Your task to perform on an android device: turn off location history Image 0: 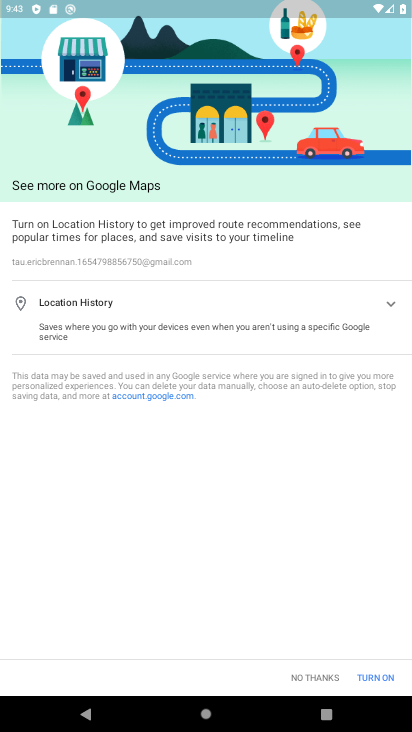
Step 0: click (224, 326)
Your task to perform on an android device: turn off location history Image 1: 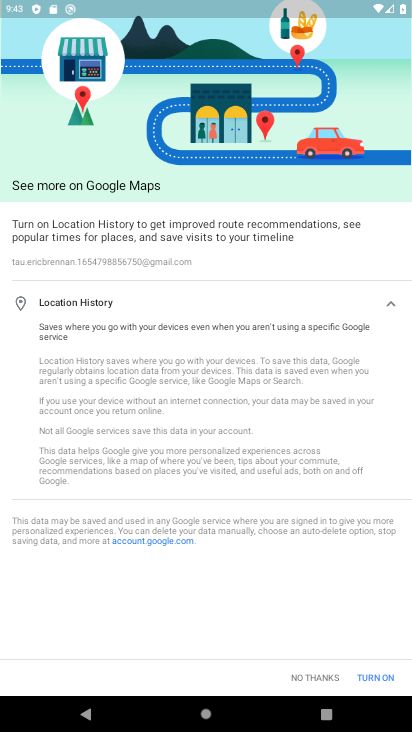
Step 1: click (308, 681)
Your task to perform on an android device: turn off location history Image 2: 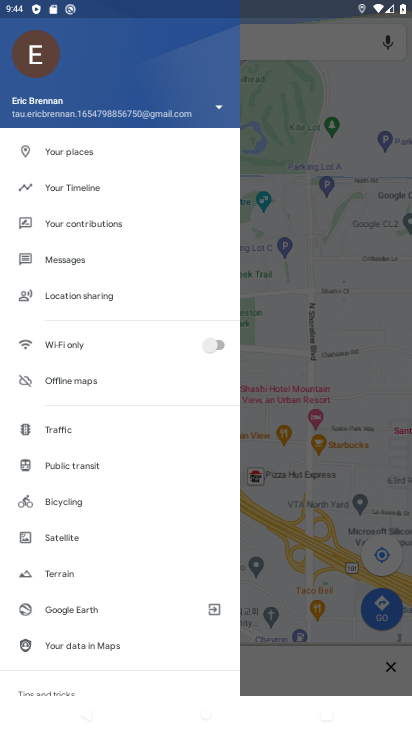
Step 2: press home button
Your task to perform on an android device: turn off location history Image 3: 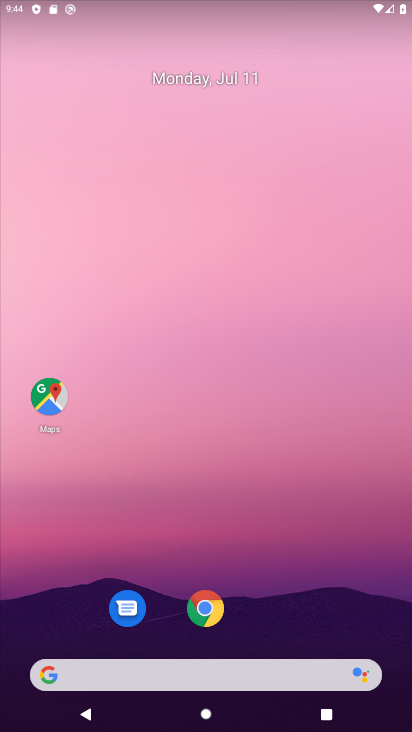
Step 3: drag from (27, 714) to (215, 95)
Your task to perform on an android device: turn off location history Image 4: 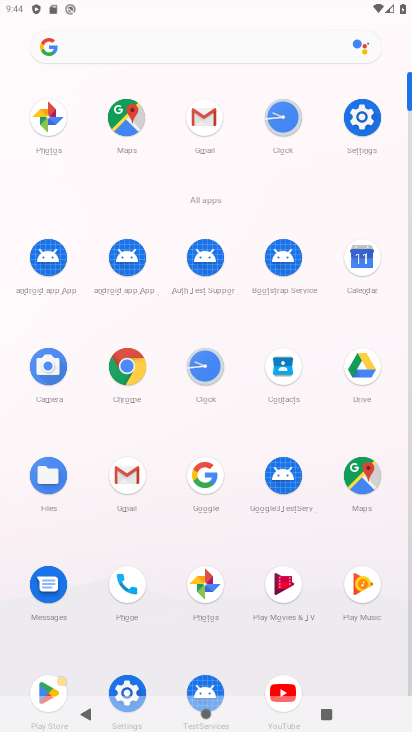
Step 4: click (135, 687)
Your task to perform on an android device: turn off location history Image 5: 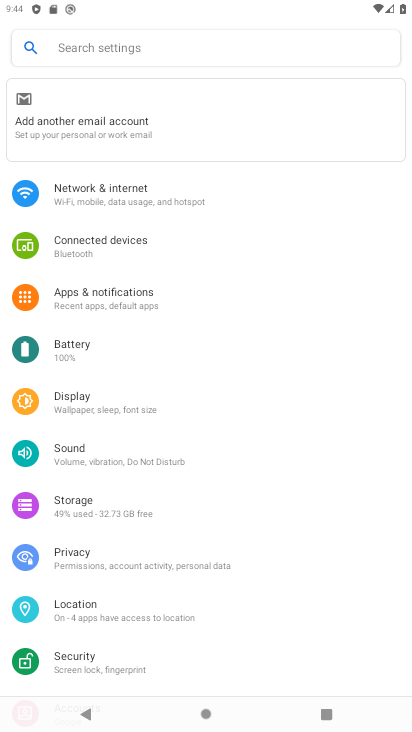
Step 5: click (100, 594)
Your task to perform on an android device: turn off location history Image 6: 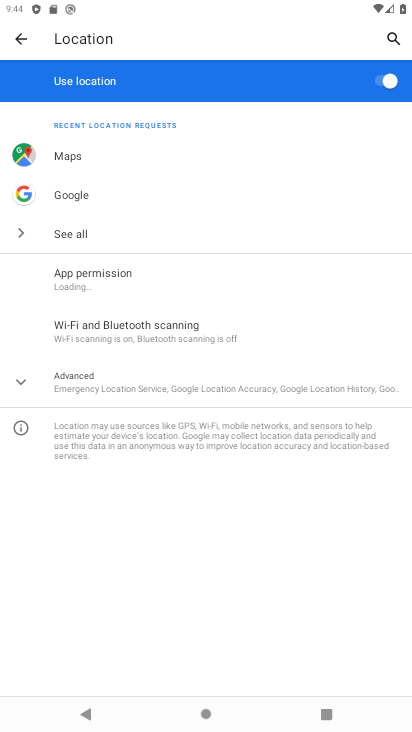
Step 6: click (83, 383)
Your task to perform on an android device: turn off location history Image 7: 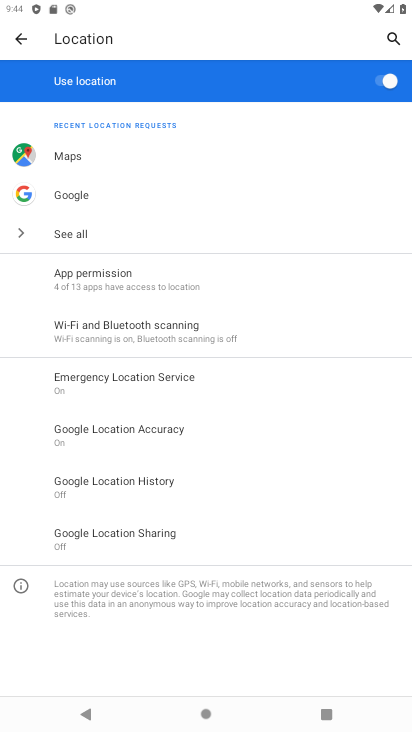
Step 7: click (110, 487)
Your task to perform on an android device: turn off location history Image 8: 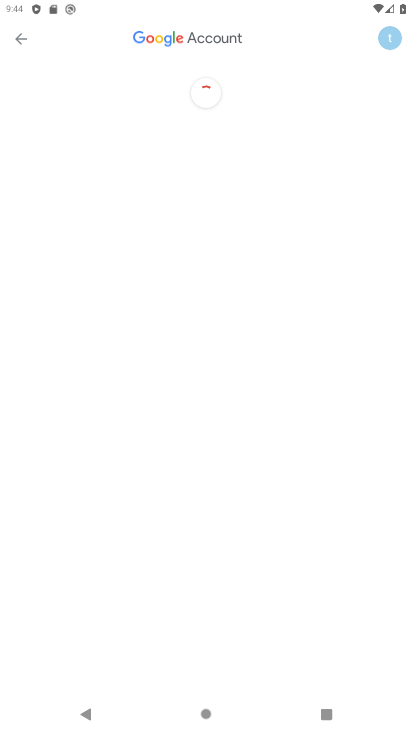
Step 8: task complete